Your task to perform on an android device: Check the weather Image 0: 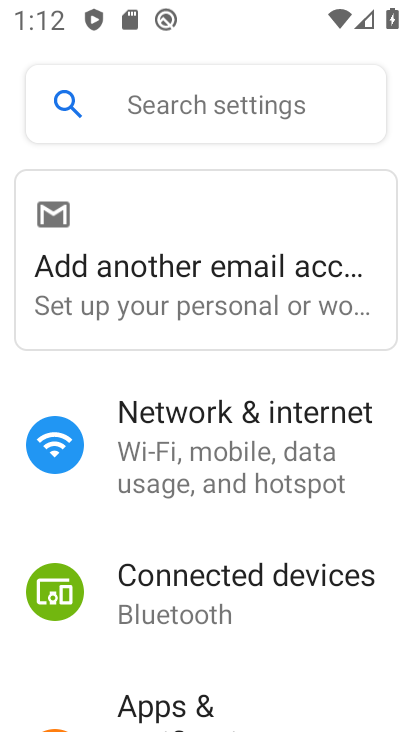
Step 0: press home button
Your task to perform on an android device: Check the weather Image 1: 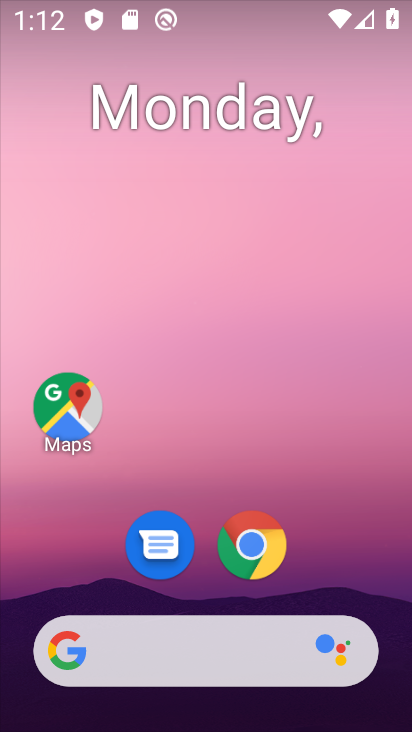
Step 1: drag from (205, 722) to (203, 134)
Your task to perform on an android device: Check the weather Image 2: 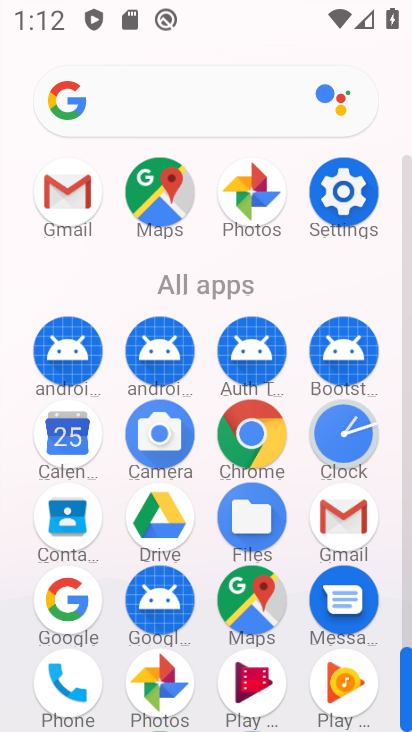
Step 2: click (76, 605)
Your task to perform on an android device: Check the weather Image 3: 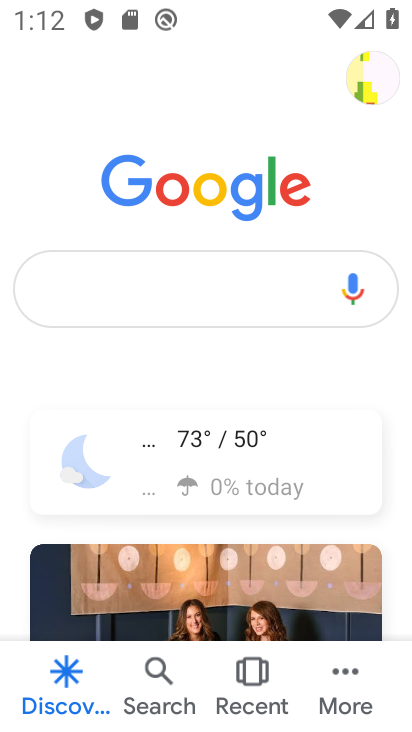
Step 3: click (80, 467)
Your task to perform on an android device: Check the weather Image 4: 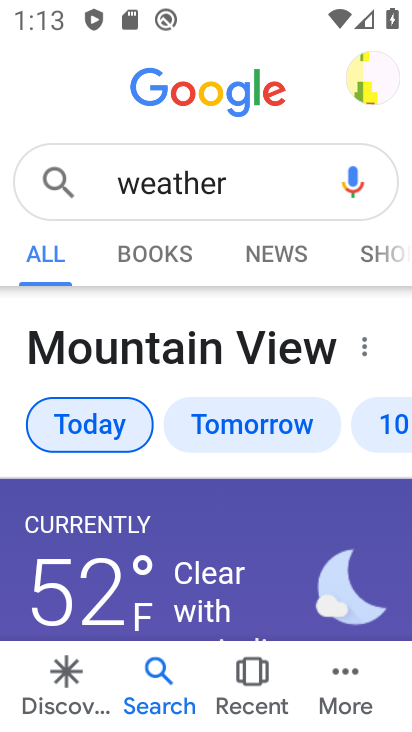
Step 4: task complete